Your task to perform on an android device: Search for Italian restaurants on Maps Image 0: 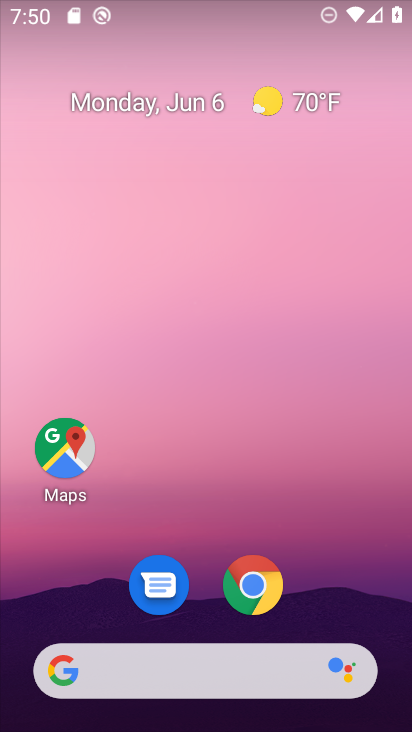
Step 0: click (63, 446)
Your task to perform on an android device: Search for Italian restaurants on Maps Image 1: 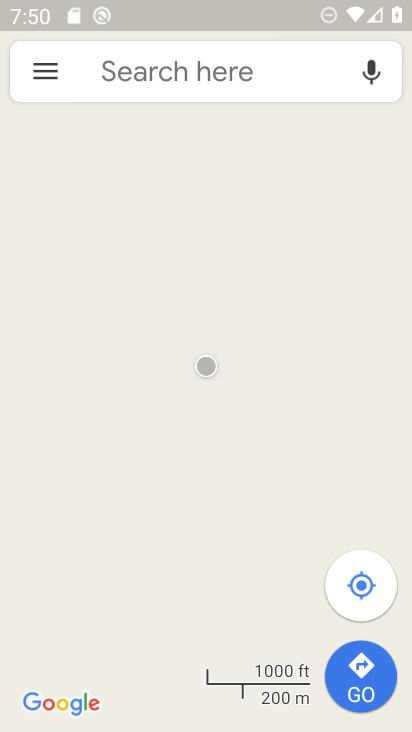
Step 1: click (187, 65)
Your task to perform on an android device: Search for Italian restaurants on Maps Image 2: 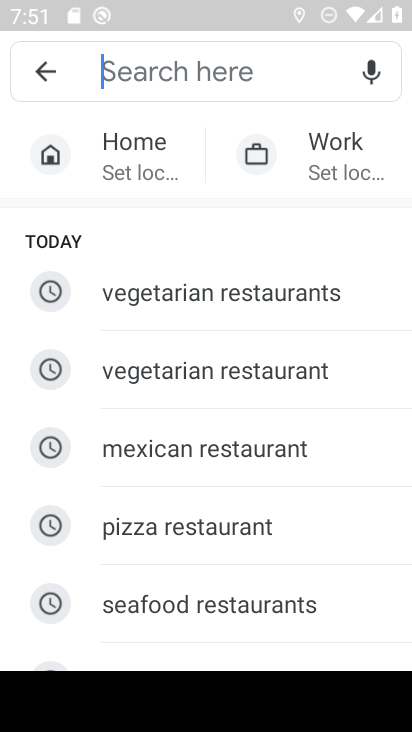
Step 2: type "Italian restaurants"
Your task to perform on an android device: Search for Italian restaurants on Maps Image 3: 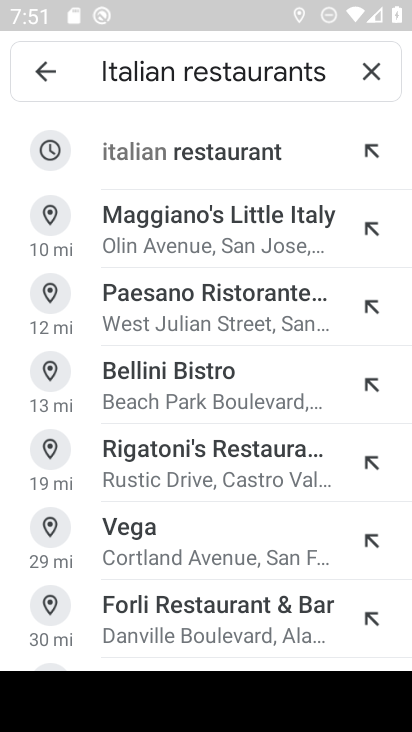
Step 3: click (263, 151)
Your task to perform on an android device: Search for Italian restaurants on Maps Image 4: 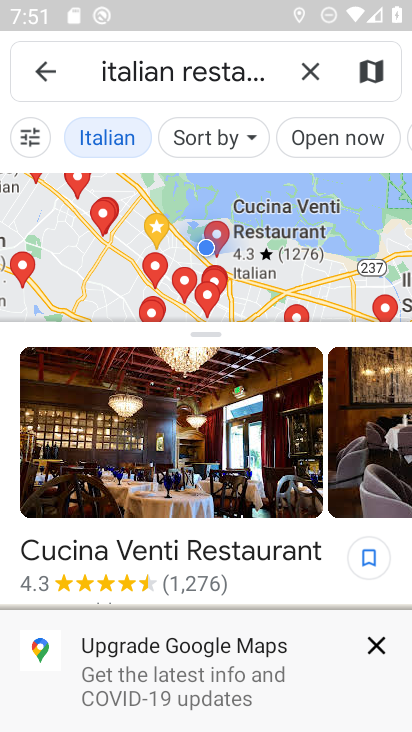
Step 4: task complete